Your task to perform on an android device: turn off notifications settings in the gmail app Image 0: 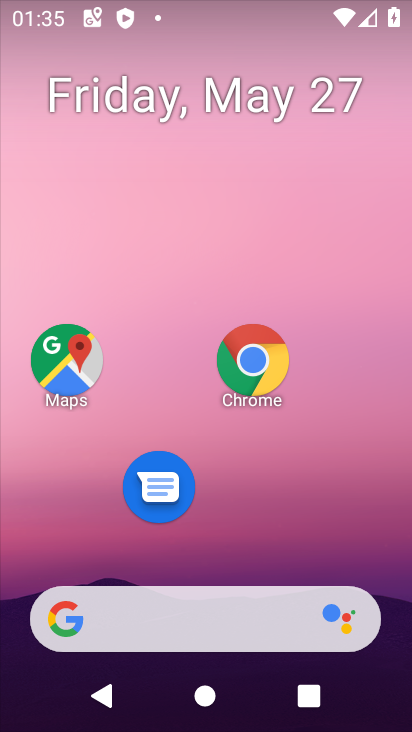
Step 0: drag from (271, 410) to (290, 100)
Your task to perform on an android device: turn off notifications settings in the gmail app Image 1: 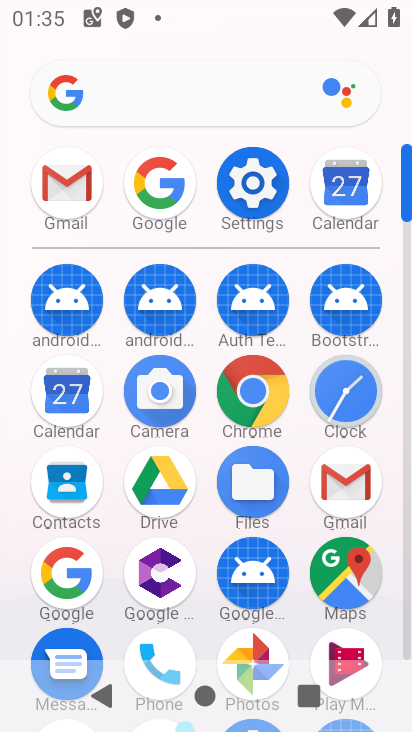
Step 1: click (67, 184)
Your task to perform on an android device: turn off notifications settings in the gmail app Image 2: 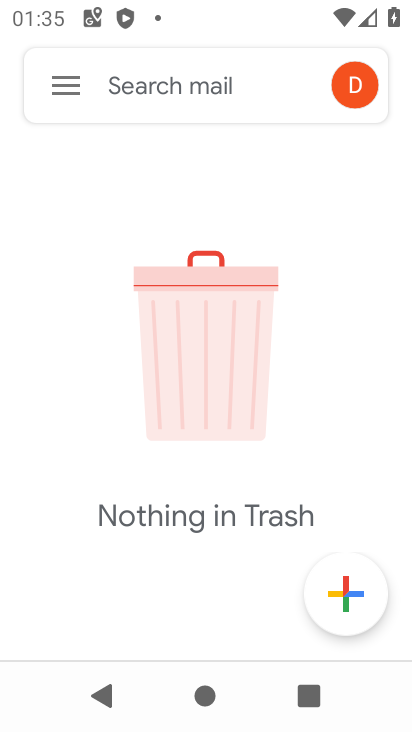
Step 2: click (72, 82)
Your task to perform on an android device: turn off notifications settings in the gmail app Image 3: 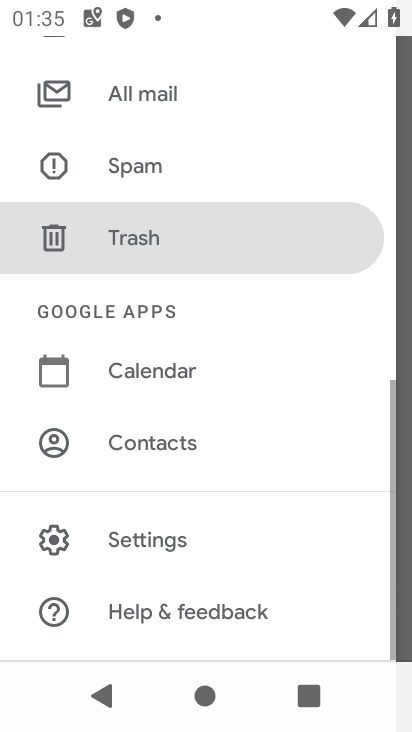
Step 3: click (167, 538)
Your task to perform on an android device: turn off notifications settings in the gmail app Image 4: 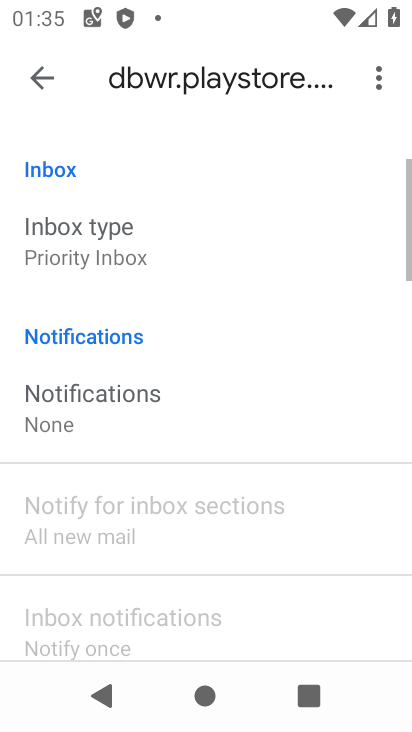
Step 4: click (117, 398)
Your task to perform on an android device: turn off notifications settings in the gmail app Image 5: 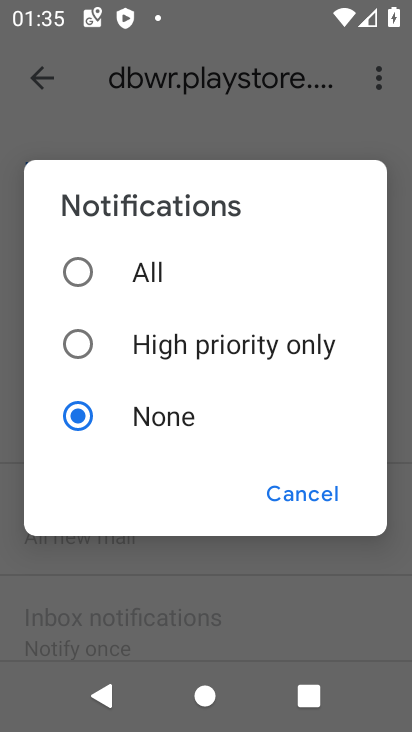
Step 5: task complete